Your task to perform on an android device: Open sound settings Image 0: 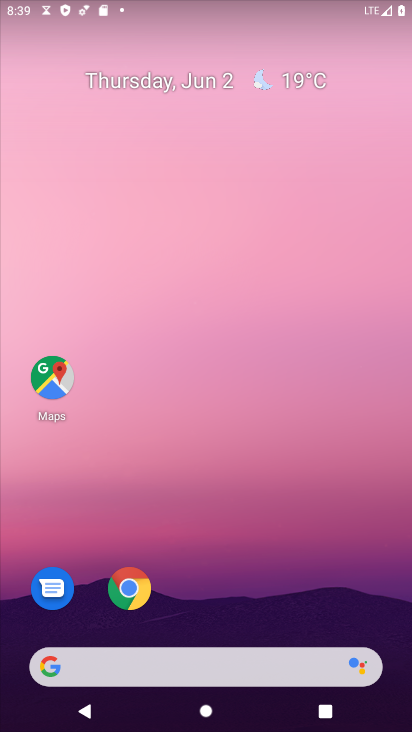
Step 0: drag from (234, 588) to (273, 102)
Your task to perform on an android device: Open sound settings Image 1: 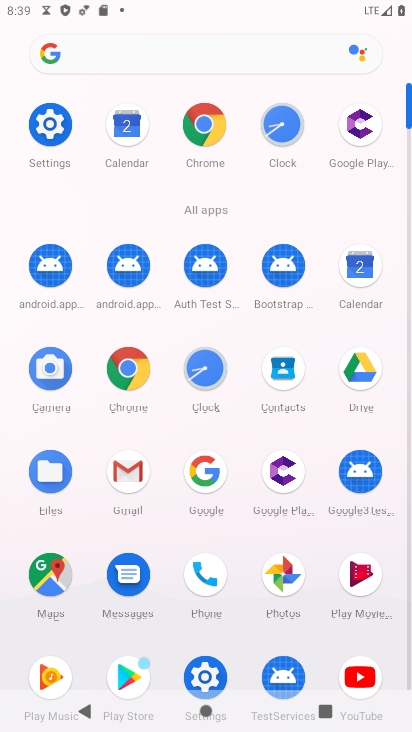
Step 1: click (53, 121)
Your task to perform on an android device: Open sound settings Image 2: 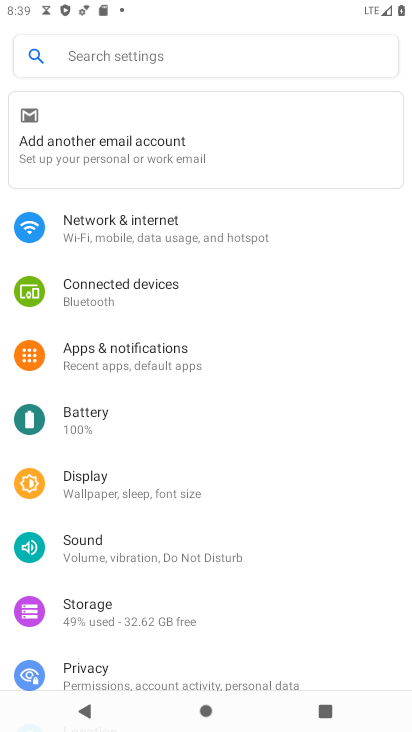
Step 2: click (113, 547)
Your task to perform on an android device: Open sound settings Image 3: 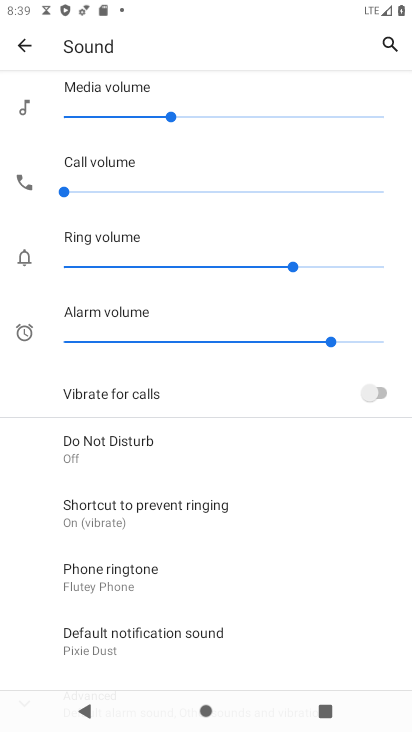
Step 3: task complete